Your task to perform on an android device: Search for dell xps on newegg, select the first entry, and add it to the cart. Image 0: 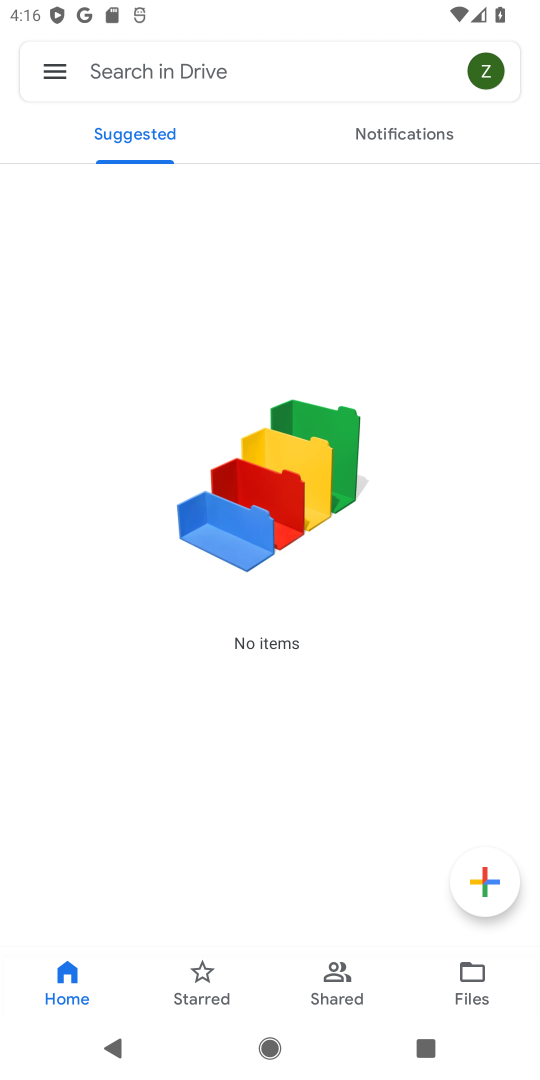
Step 0: press home button
Your task to perform on an android device: Search for dell xps on newegg, select the first entry, and add it to the cart. Image 1: 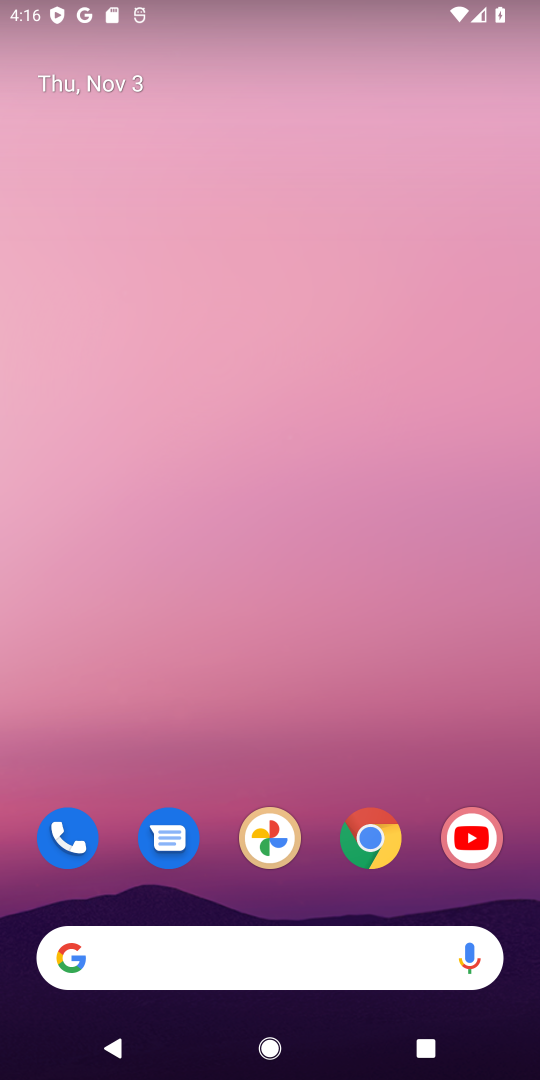
Step 1: click (379, 843)
Your task to perform on an android device: Search for dell xps on newegg, select the first entry, and add it to the cart. Image 2: 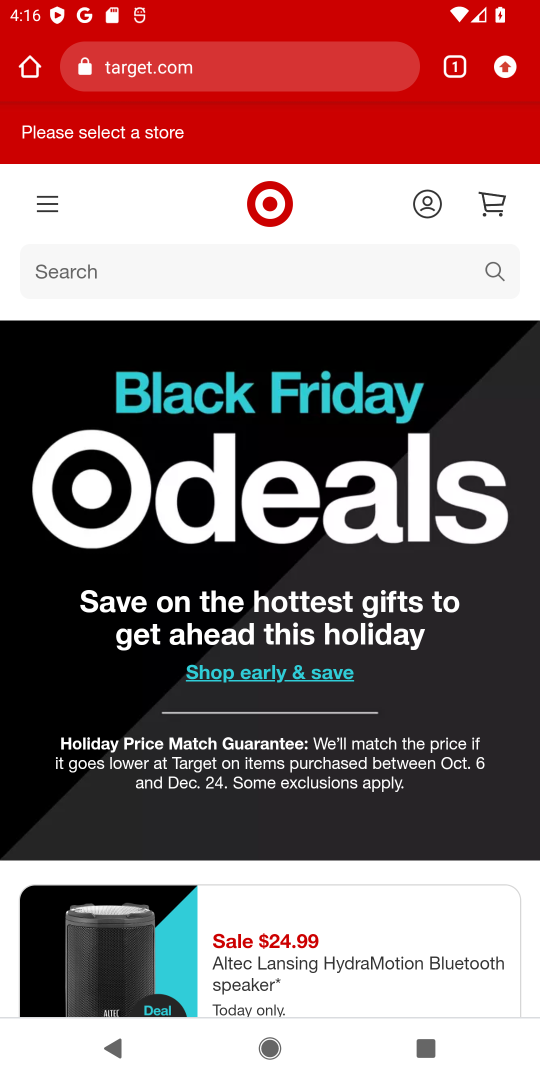
Step 2: click (285, 67)
Your task to perform on an android device: Search for dell xps on newegg, select the first entry, and add it to the cart. Image 3: 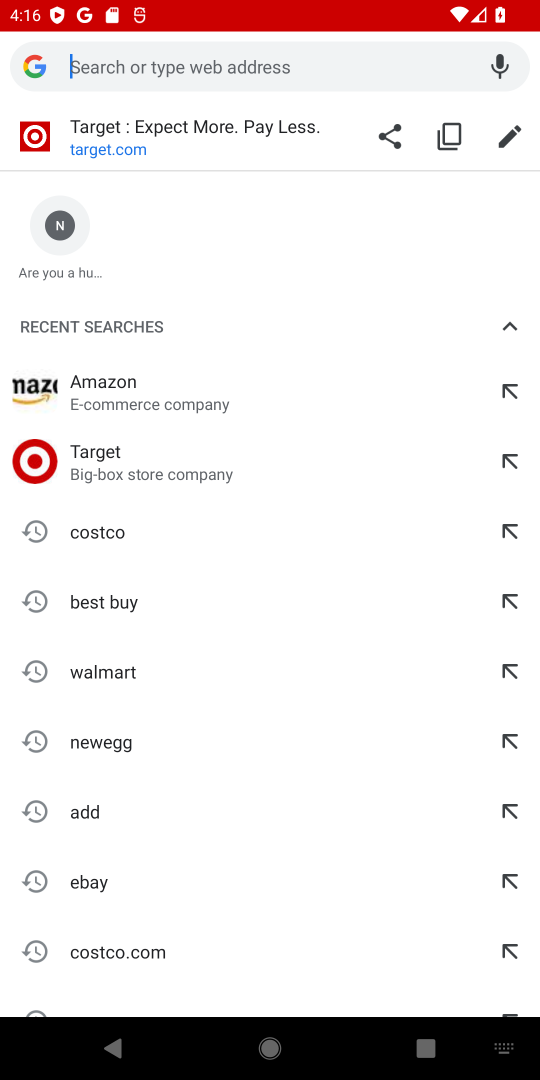
Step 3: click (121, 747)
Your task to perform on an android device: Search for dell xps on newegg, select the first entry, and add it to the cart. Image 4: 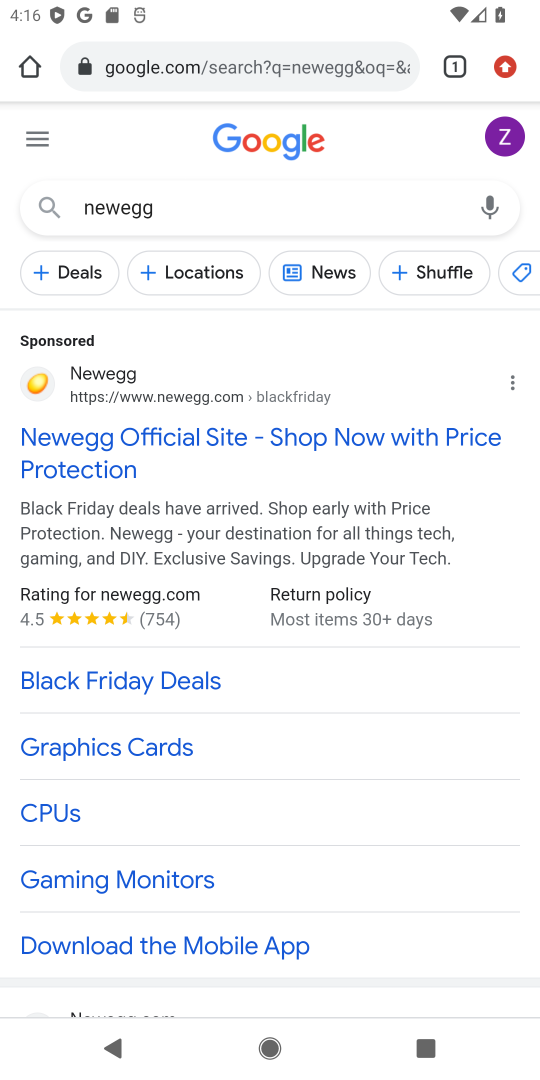
Step 4: click (150, 454)
Your task to perform on an android device: Search for dell xps on newegg, select the first entry, and add it to the cart. Image 5: 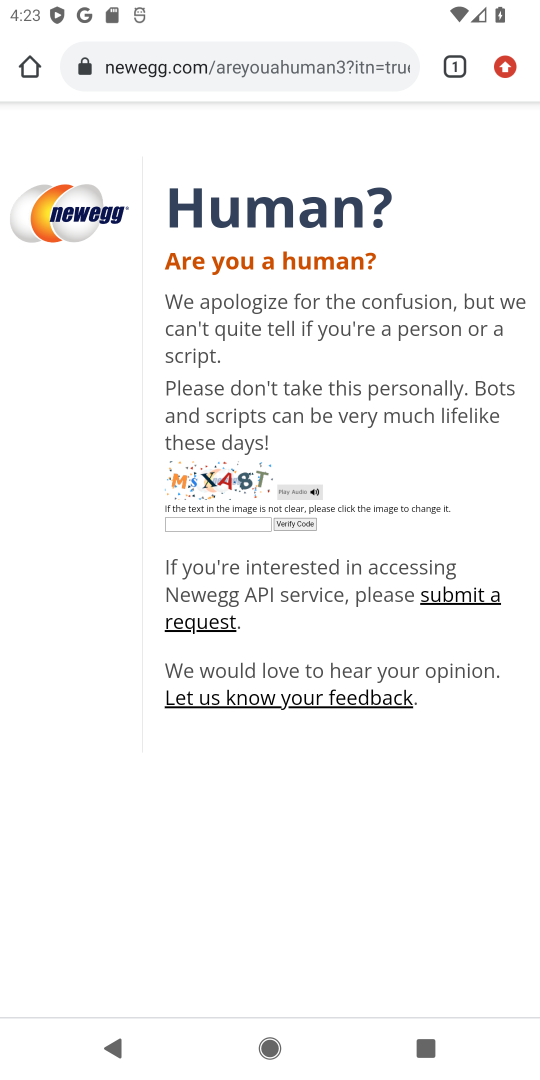
Step 5: task complete